Your task to perform on an android device: delete a single message in the gmail app Image 0: 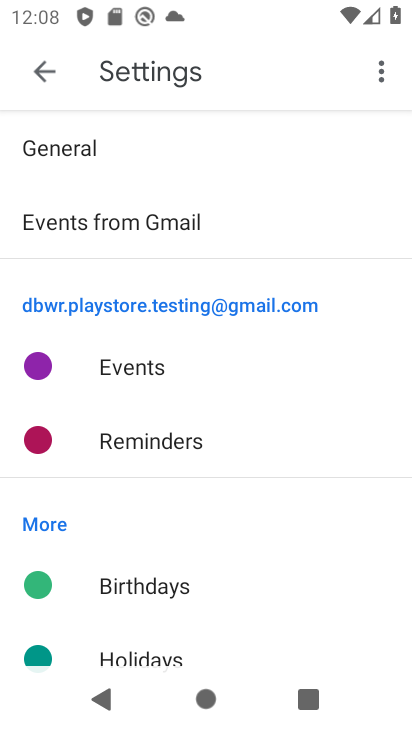
Step 0: press home button
Your task to perform on an android device: delete a single message in the gmail app Image 1: 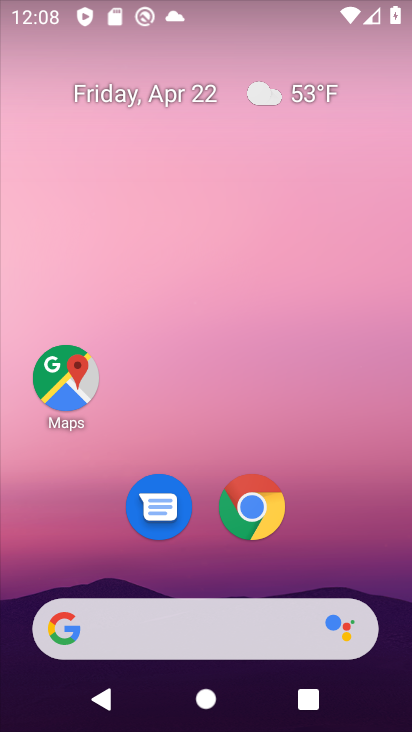
Step 1: drag from (158, 613) to (124, 17)
Your task to perform on an android device: delete a single message in the gmail app Image 2: 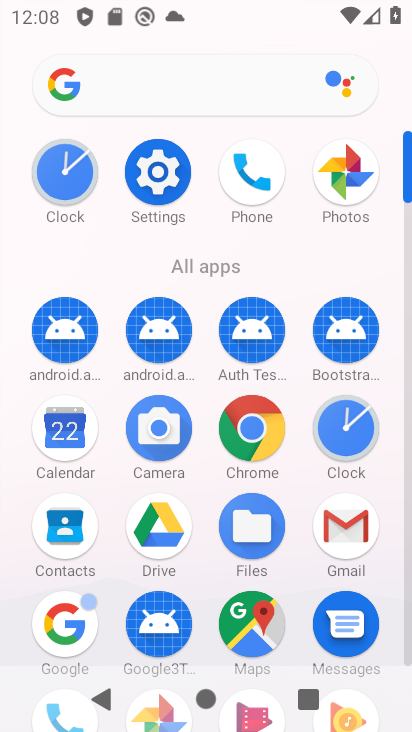
Step 2: click (354, 517)
Your task to perform on an android device: delete a single message in the gmail app Image 3: 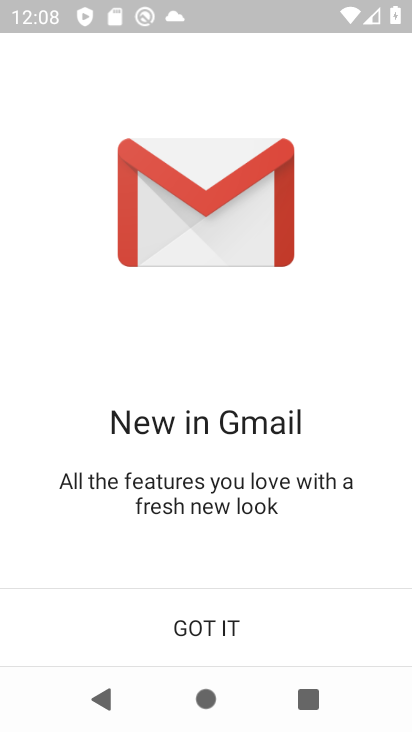
Step 3: click (240, 609)
Your task to perform on an android device: delete a single message in the gmail app Image 4: 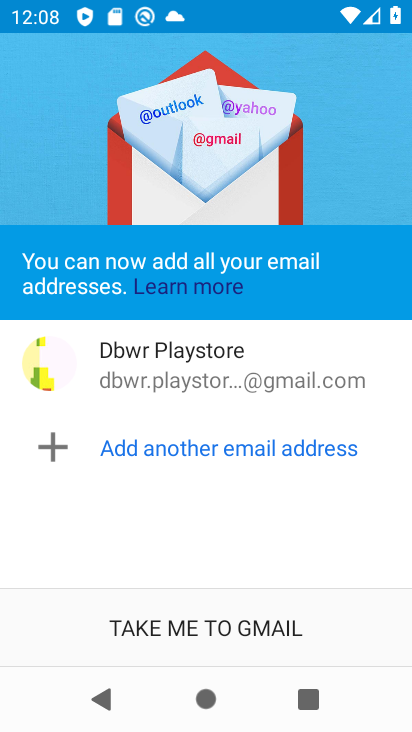
Step 4: click (219, 614)
Your task to perform on an android device: delete a single message in the gmail app Image 5: 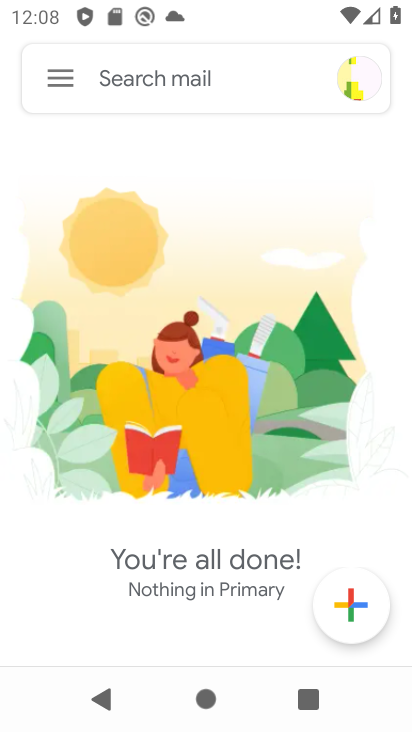
Step 5: click (59, 73)
Your task to perform on an android device: delete a single message in the gmail app Image 6: 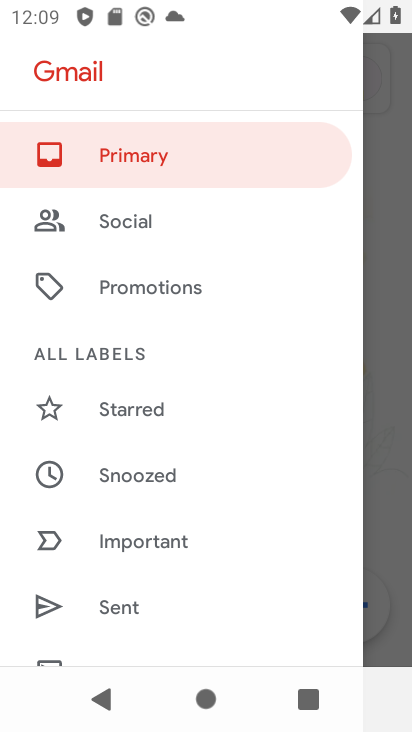
Step 6: drag from (117, 581) to (125, 133)
Your task to perform on an android device: delete a single message in the gmail app Image 7: 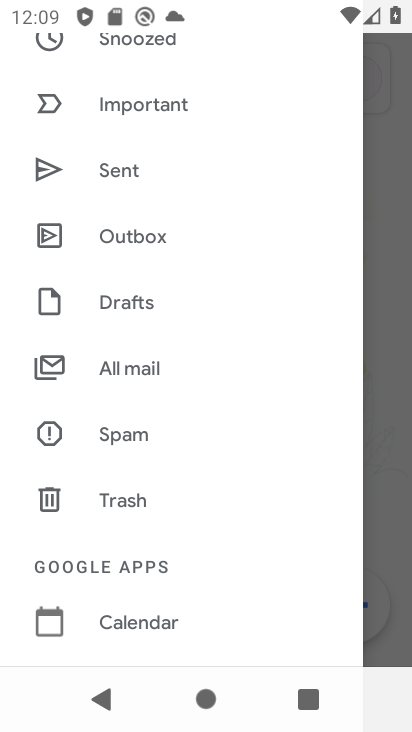
Step 7: drag from (173, 579) to (144, 105)
Your task to perform on an android device: delete a single message in the gmail app Image 8: 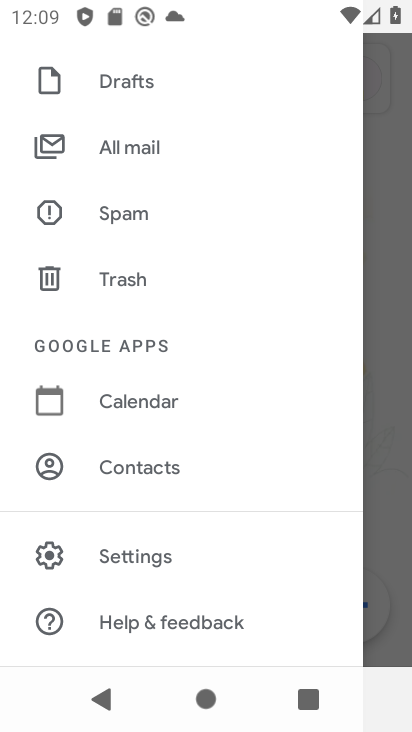
Step 8: click (136, 139)
Your task to perform on an android device: delete a single message in the gmail app Image 9: 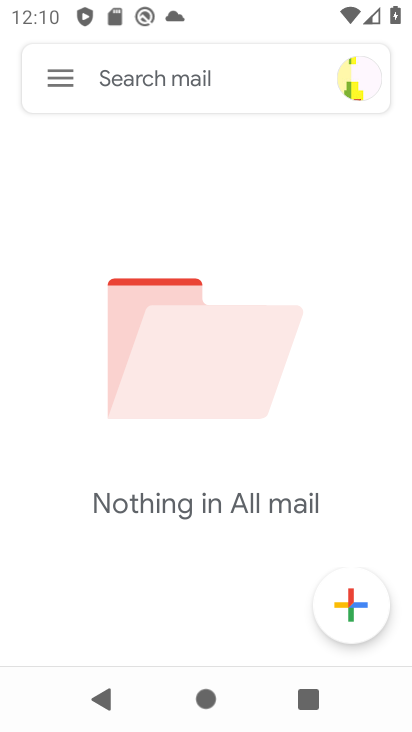
Step 9: task complete